Your task to perform on an android device: toggle pop-ups in chrome Image 0: 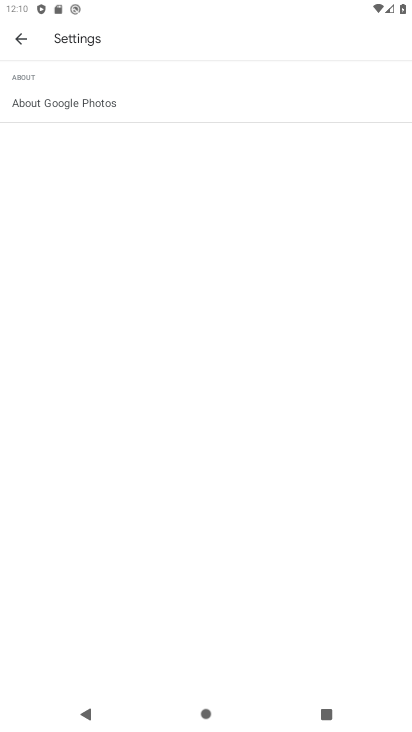
Step 0: press home button
Your task to perform on an android device: toggle pop-ups in chrome Image 1: 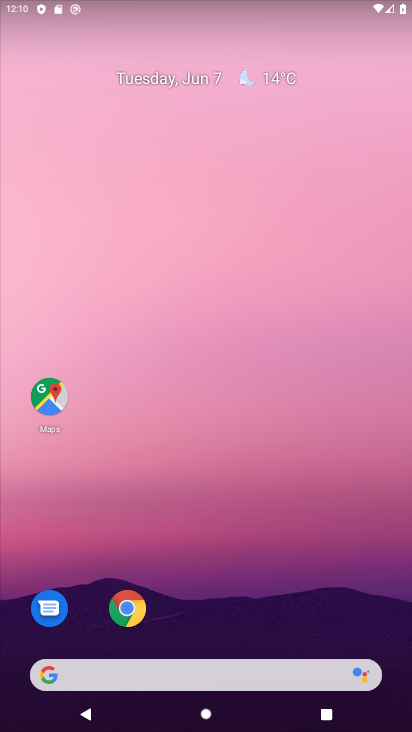
Step 1: click (135, 627)
Your task to perform on an android device: toggle pop-ups in chrome Image 2: 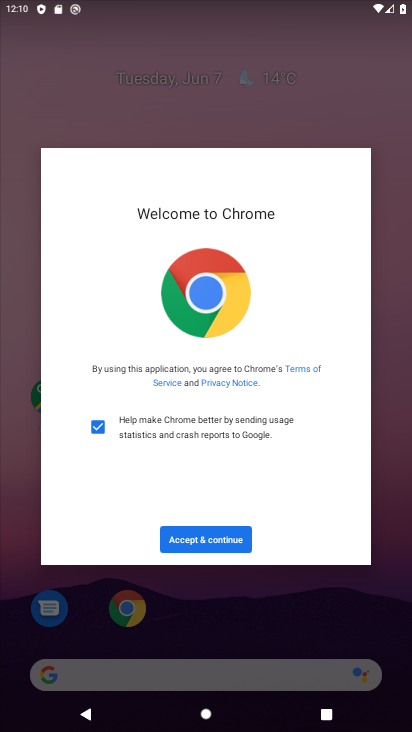
Step 2: click (226, 531)
Your task to perform on an android device: toggle pop-ups in chrome Image 3: 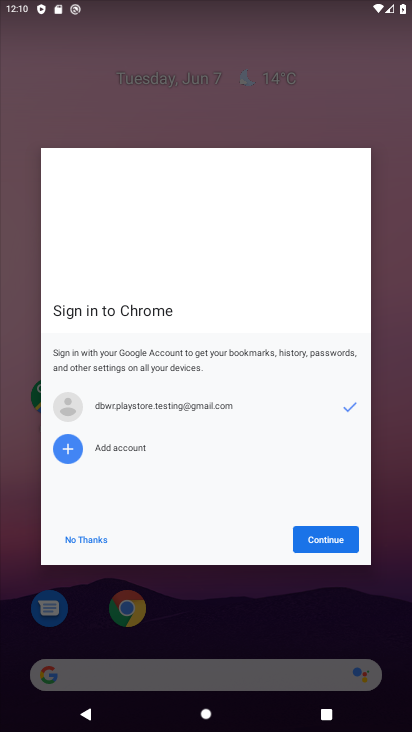
Step 3: click (330, 538)
Your task to perform on an android device: toggle pop-ups in chrome Image 4: 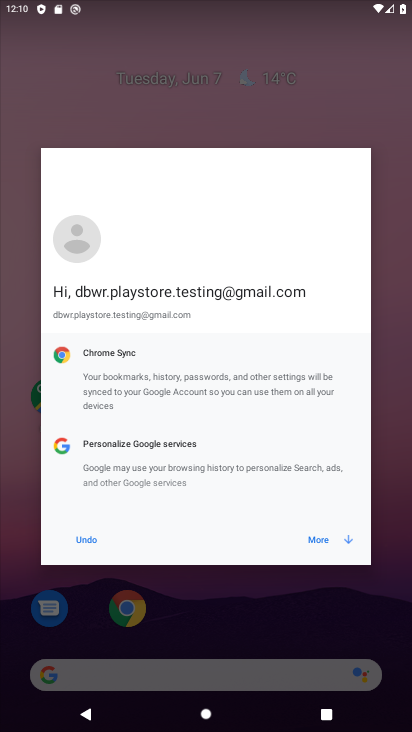
Step 4: click (331, 539)
Your task to perform on an android device: toggle pop-ups in chrome Image 5: 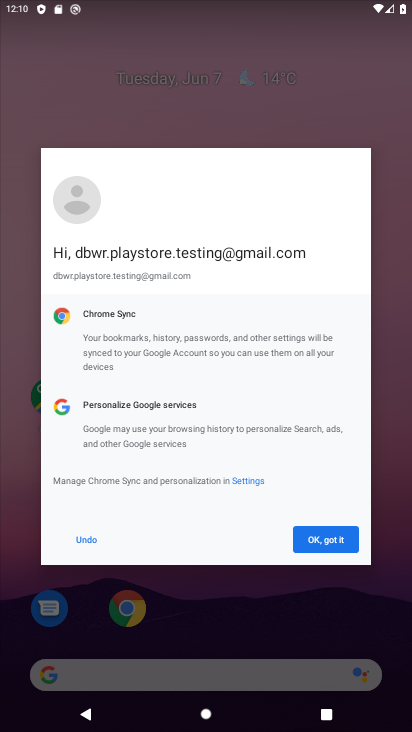
Step 5: click (360, 550)
Your task to perform on an android device: toggle pop-ups in chrome Image 6: 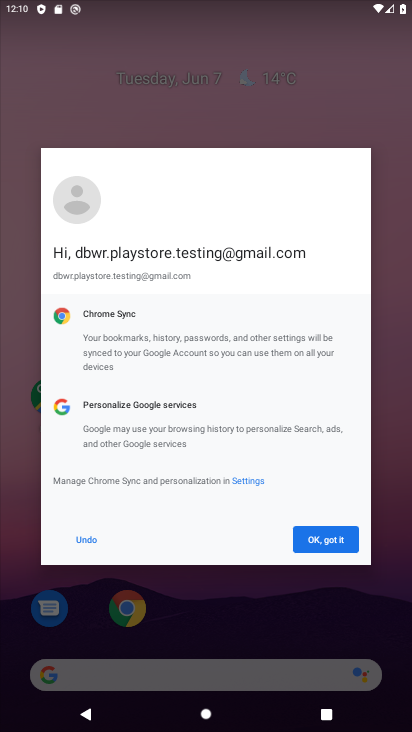
Step 6: click (350, 547)
Your task to perform on an android device: toggle pop-ups in chrome Image 7: 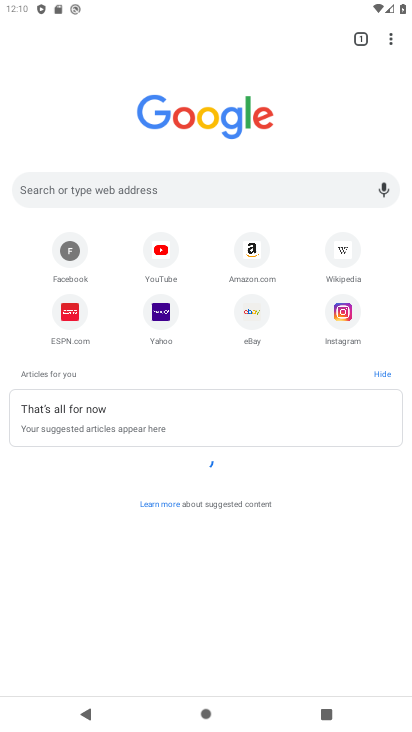
Step 7: drag from (402, 46) to (288, 329)
Your task to perform on an android device: toggle pop-ups in chrome Image 8: 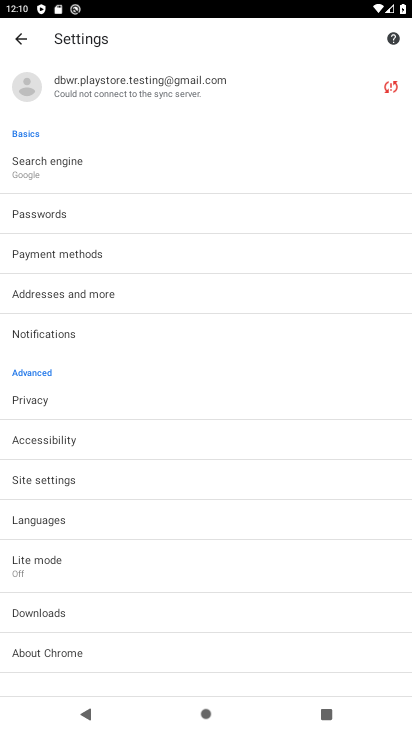
Step 8: drag from (182, 576) to (290, 254)
Your task to perform on an android device: toggle pop-ups in chrome Image 9: 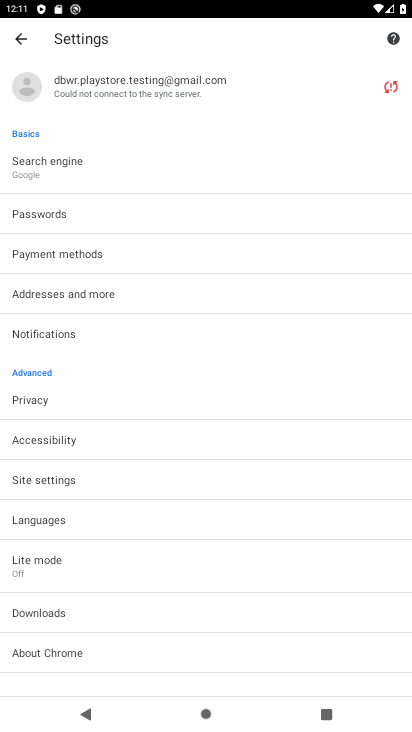
Step 9: click (118, 479)
Your task to perform on an android device: toggle pop-ups in chrome Image 10: 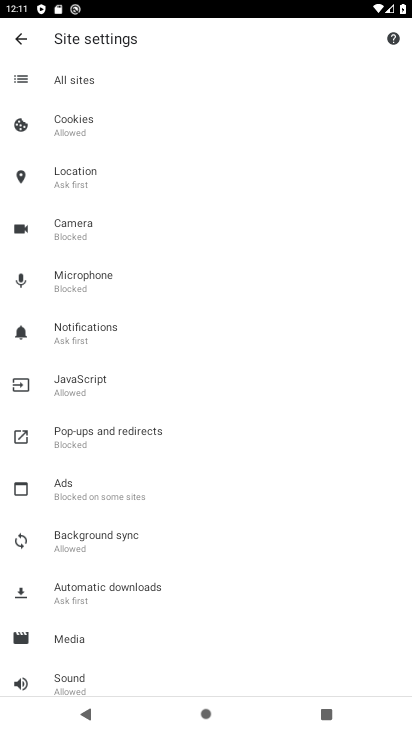
Step 10: click (164, 446)
Your task to perform on an android device: toggle pop-ups in chrome Image 11: 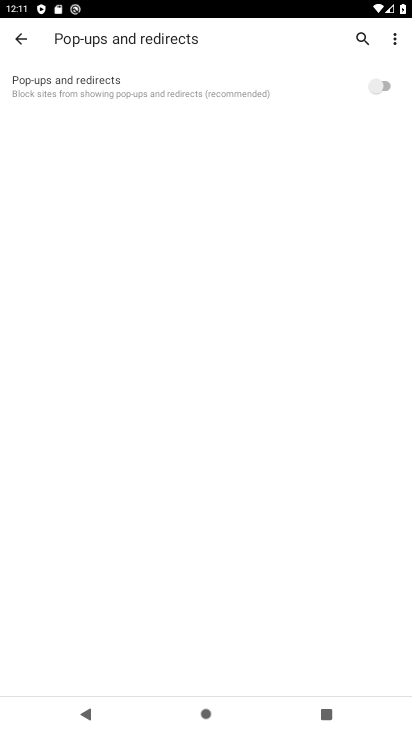
Step 11: click (389, 86)
Your task to perform on an android device: toggle pop-ups in chrome Image 12: 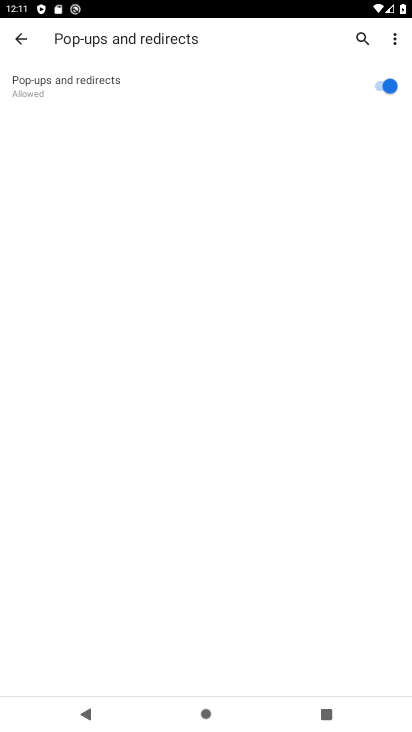
Step 12: task complete